Your task to perform on an android device: turn off priority inbox in the gmail app Image 0: 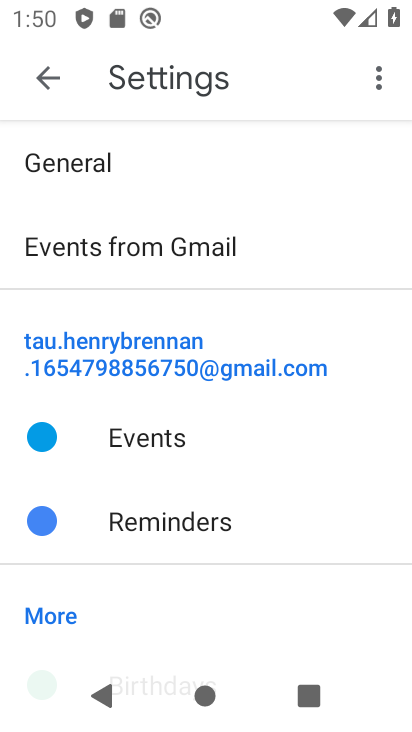
Step 0: press home button
Your task to perform on an android device: turn off priority inbox in the gmail app Image 1: 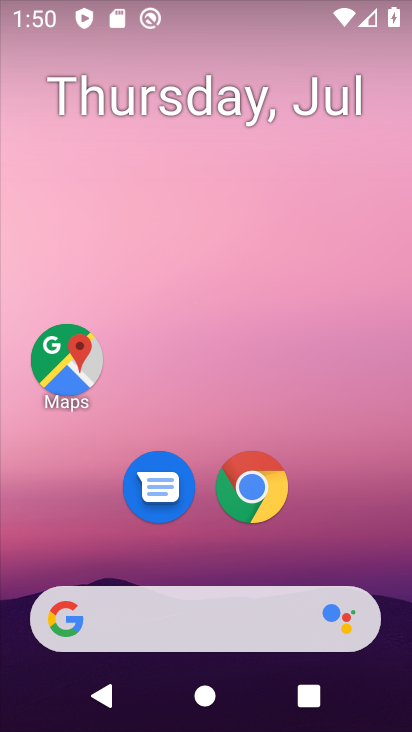
Step 1: drag from (373, 534) to (371, 116)
Your task to perform on an android device: turn off priority inbox in the gmail app Image 2: 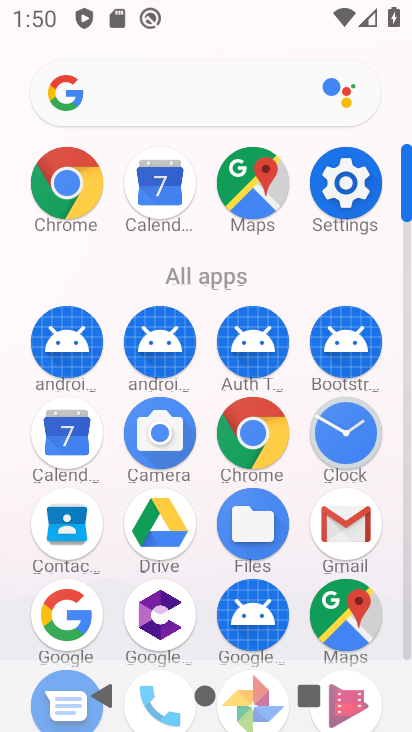
Step 2: click (344, 528)
Your task to perform on an android device: turn off priority inbox in the gmail app Image 3: 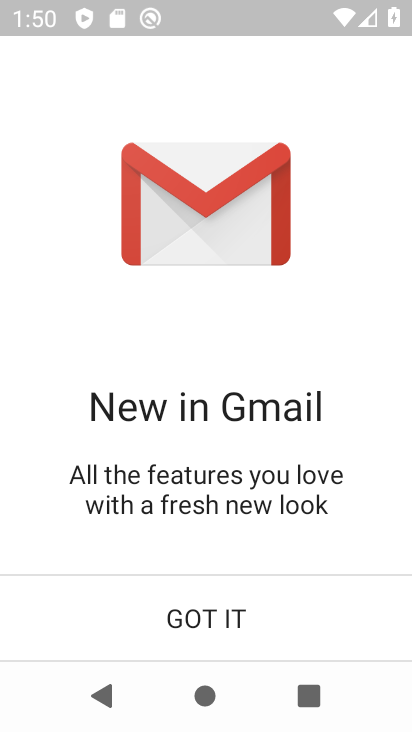
Step 3: click (251, 619)
Your task to perform on an android device: turn off priority inbox in the gmail app Image 4: 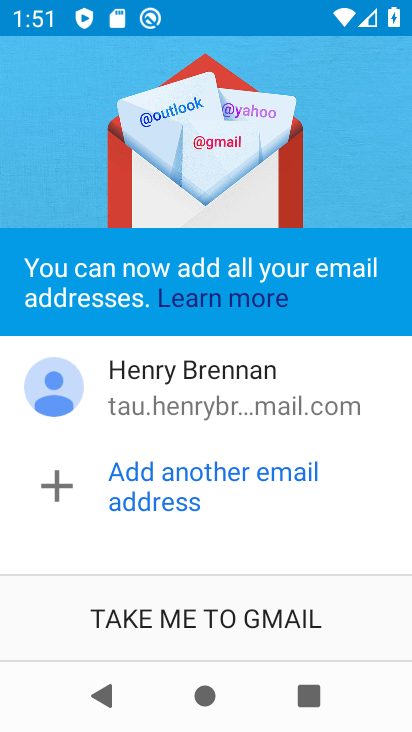
Step 4: click (239, 607)
Your task to perform on an android device: turn off priority inbox in the gmail app Image 5: 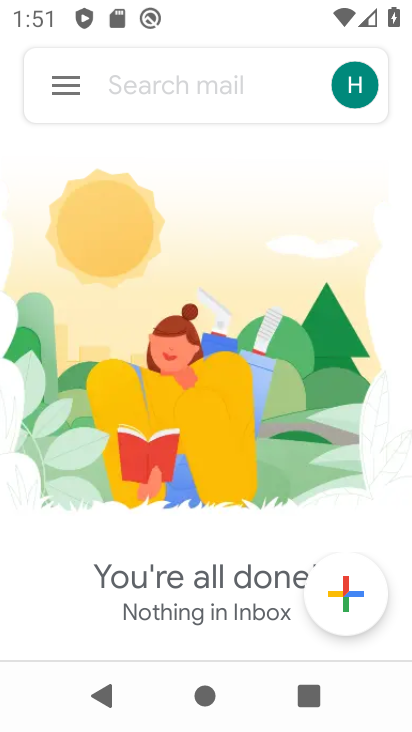
Step 5: click (67, 88)
Your task to perform on an android device: turn off priority inbox in the gmail app Image 6: 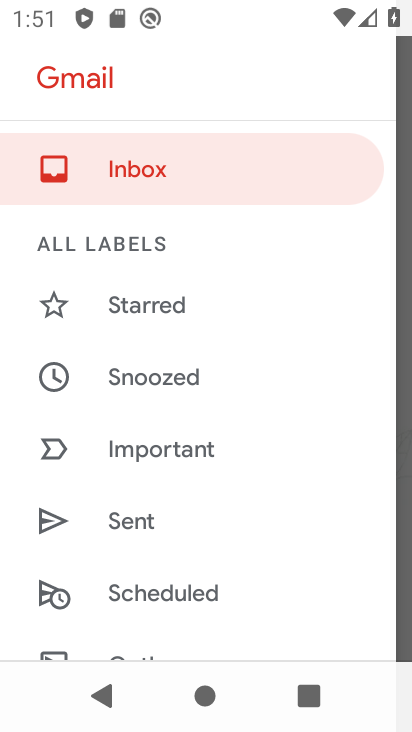
Step 6: drag from (305, 344) to (318, 270)
Your task to perform on an android device: turn off priority inbox in the gmail app Image 7: 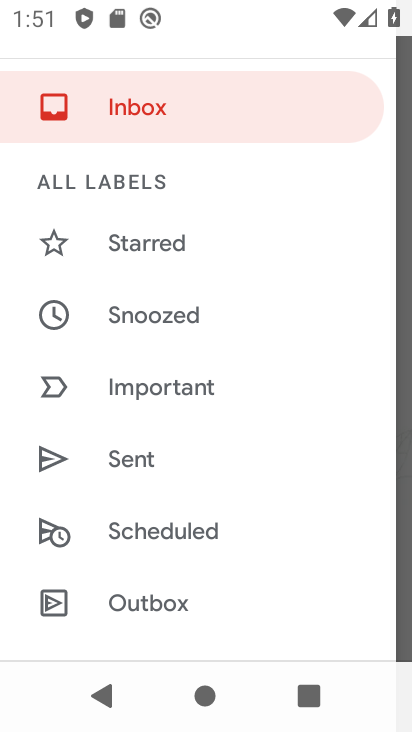
Step 7: drag from (319, 415) to (325, 324)
Your task to perform on an android device: turn off priority inbox in the gmail app Image 8: 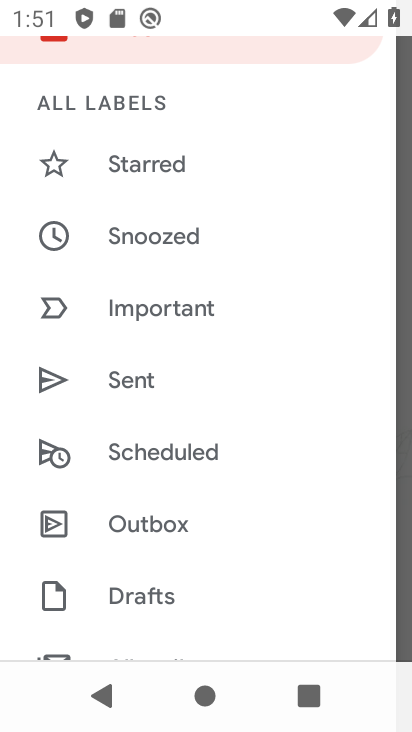
Step 8: drag from (340, 493) to (353, 397)
Your task to perform on an android device: turn off priority inbox in the gmail app Image 9: 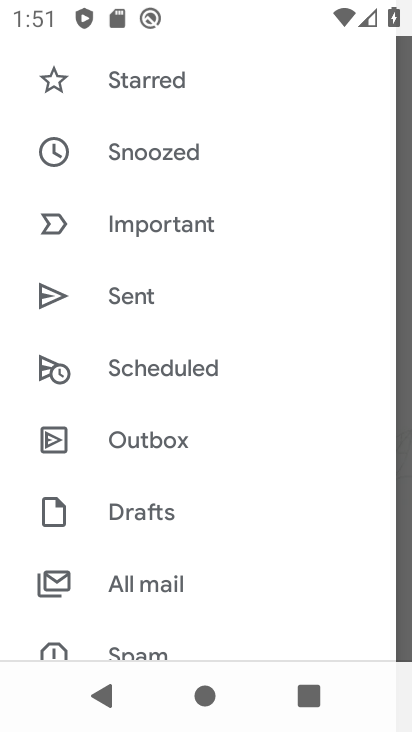
Step 9: drag from (346, 487) to (341, 394)
Your task to perform on an android device: turn off priority inbox in the gmail app Image 10: 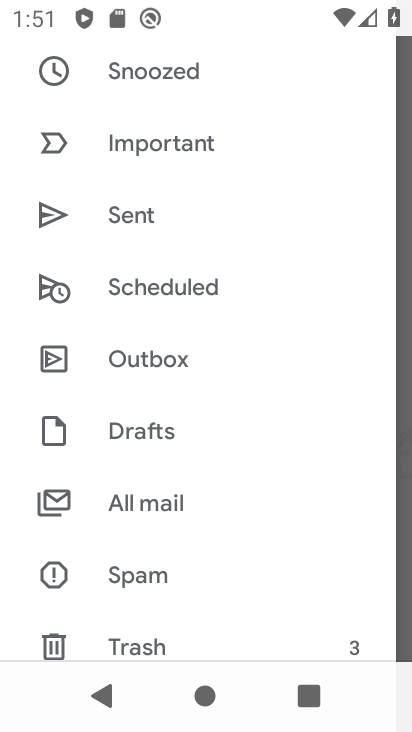
Step 10: drag from (333, 469) to (333, 393)
Your task to perform on an android device: turn off priority inbox in the gmail app Image 11: 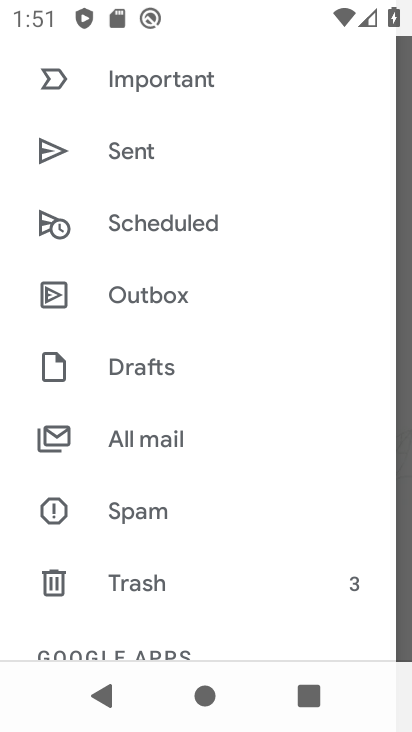
Step 11: drag from (331, 430) to (331, 393)
Your task to perform on an android device: turn off priority inbox in the gmail app Image 12: 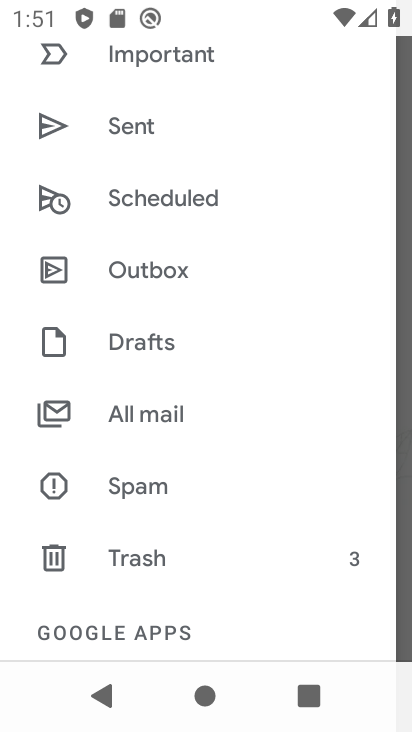
Step 12: drag from (314, 483) to (314, 393)
Your task to perform on an android device: turn off priority inbox in the gmail app Image 13: 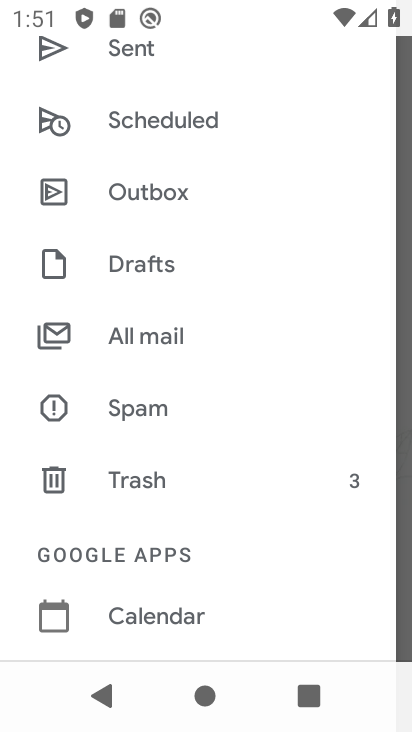
Step 13: drag from (309, 485) to (308, 418)
Your task to perform on an android device: turn off priority inbox in the gmail app Image 14: 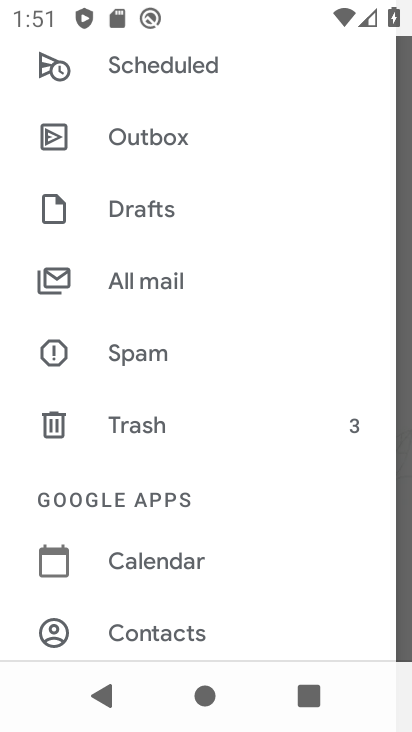
Step 14: drag from (301, 496) to (306, 408)
Your task to perform on an android device: turn off priority inbox in the gmail app Image 15: 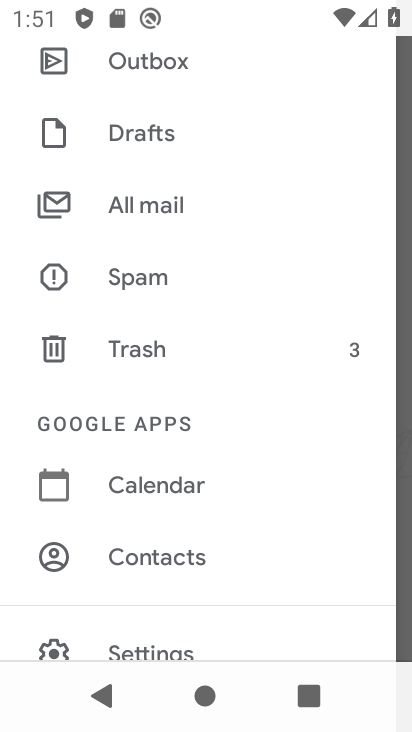
Step 15: drag from (312, 489) to (310, 390)
Your task to perform on an android device: turn off priority inbox in the gmail app Image 16: 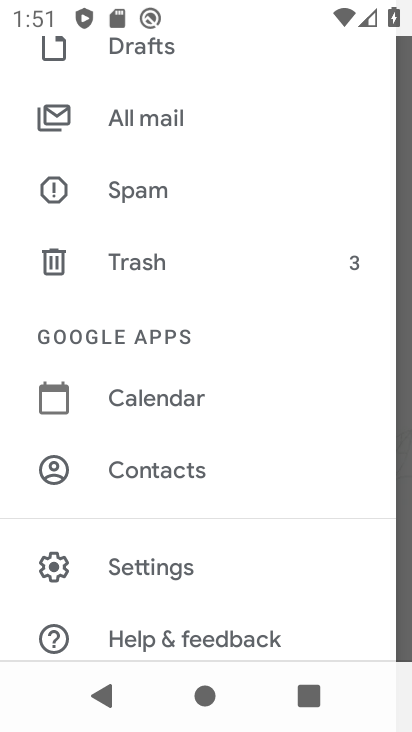
Step 16: drag from (306, 497) to (317, 414)
Your task to perform on an android device: turn off priority inbox in the gmail app Image 17: 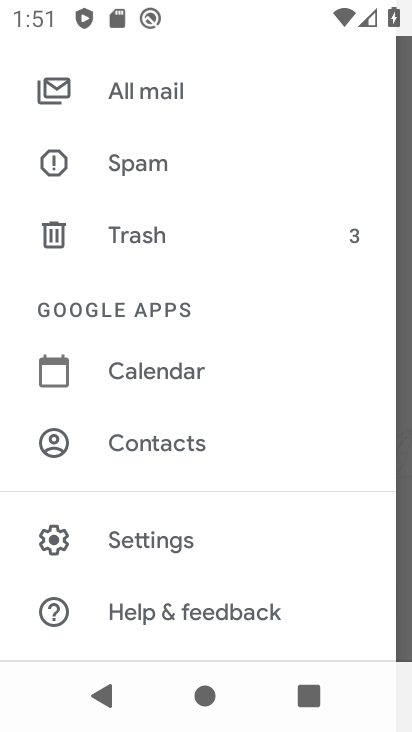
Step 17: click (254, 539)
Your task to perform on an android device: turn off priority inbox in the gmail app Image 18: 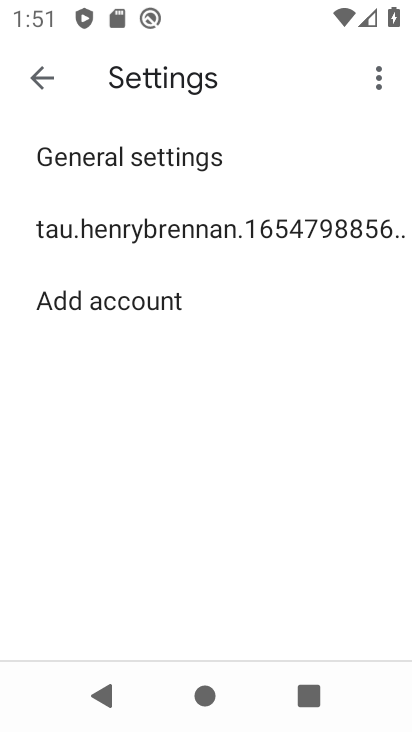
Step 18: click (281, 244)
Your task to perform on an android device: turn off priority inbox in the gmail app Image 19: 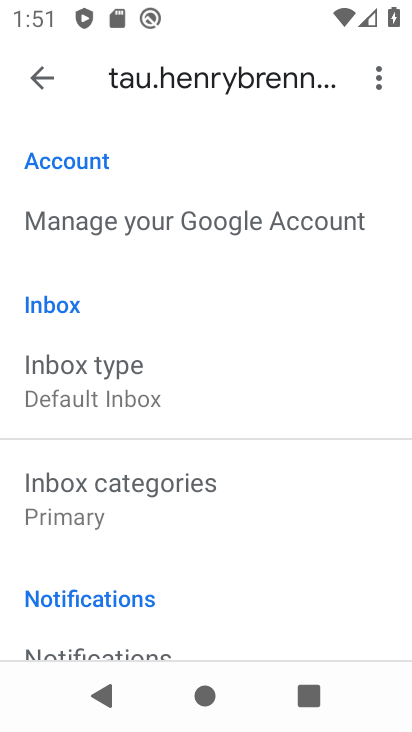
Step 19: task complete